Your task to perform on an android device: Open calendar and show me the second week of next month Image 0: 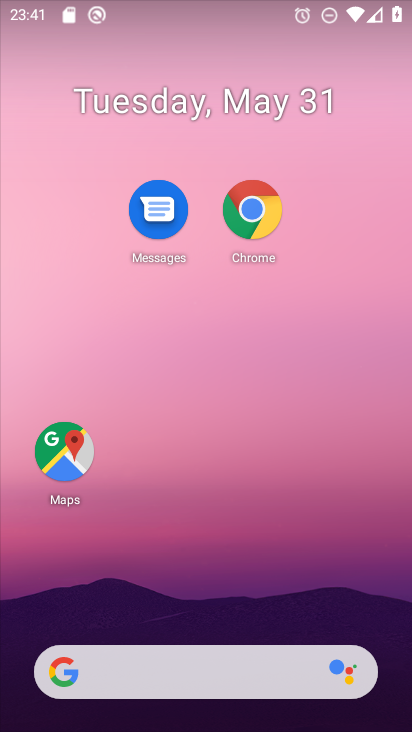
Step 0: press home button
Your task to perform on an android device: Open calendar and show me the second week of next month Image 1: 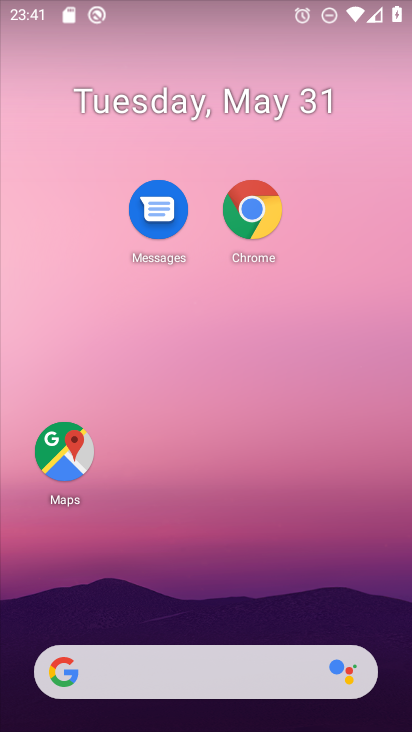
Step 1: drag from (209, 616) to (195, 4)
Your task to perform on an android device: Open calendar and show me the second week of next month Image 2: 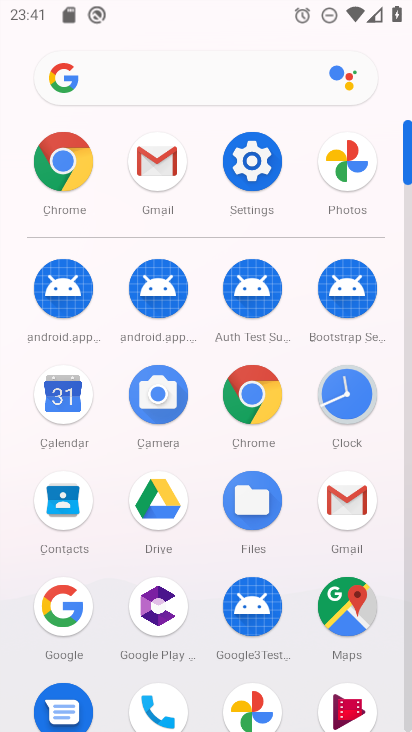
Step 2: click (65, 389)
Your task to perform on an android device: Open calendar and show me the second week of next month Image 3: 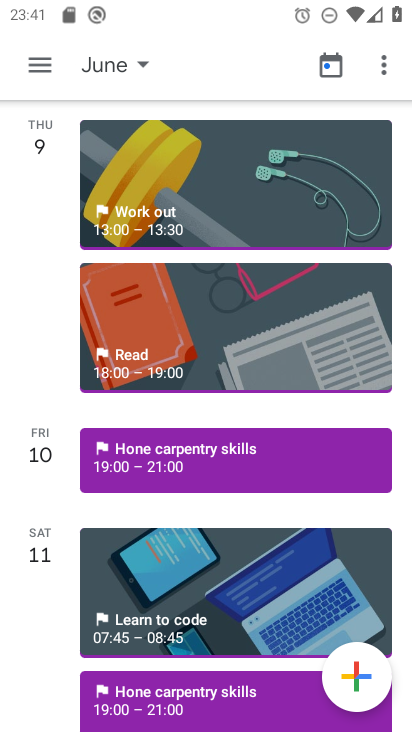
Step 3: task complete